Your task to perform on an android device: Open notification settings Image 0: 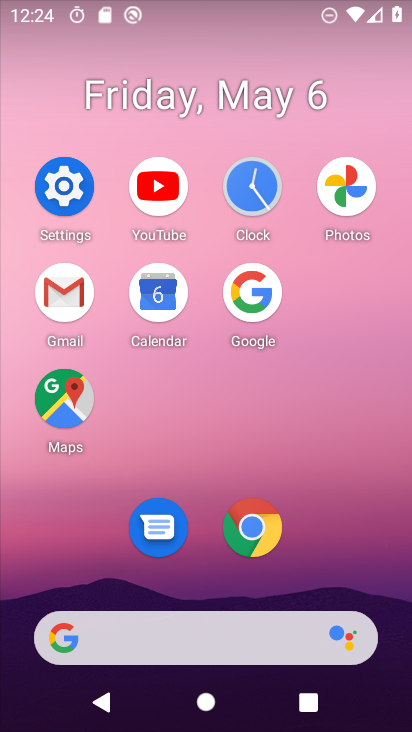
Step 0: click (72, 197)
Your task to perform on an android device: Open notification settings Image 1: 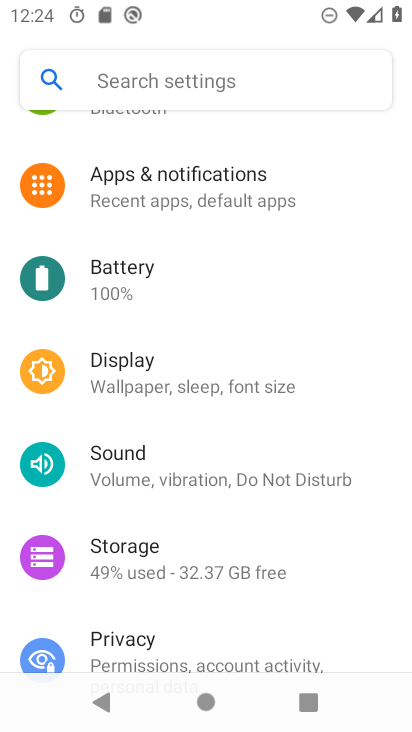
Step 1: click (231, 195)
Your task to perform on an android device: Open notification settings Image 2: 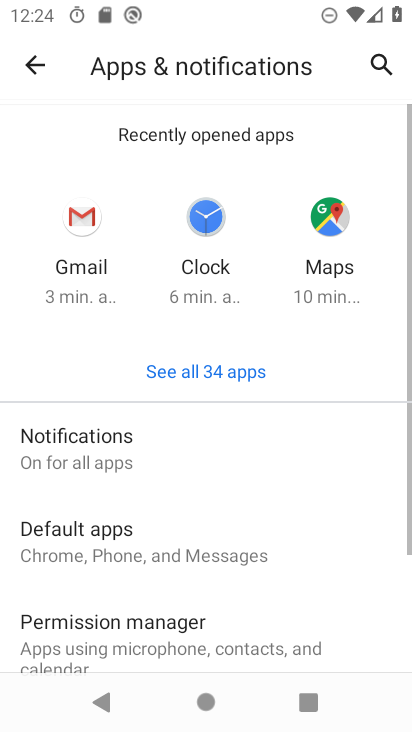
Step 2: click (147, 450)
Your task to perform on an android device: Open notification settings Image 3: 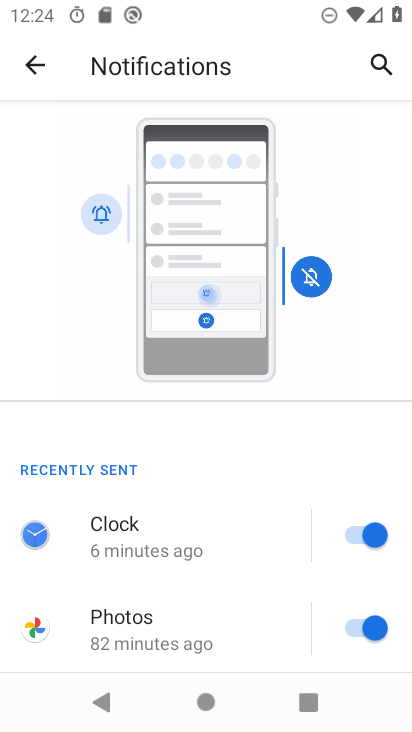
Step 3: task complete